Your task to perform on an android device: Go to wifi settings Image 0: 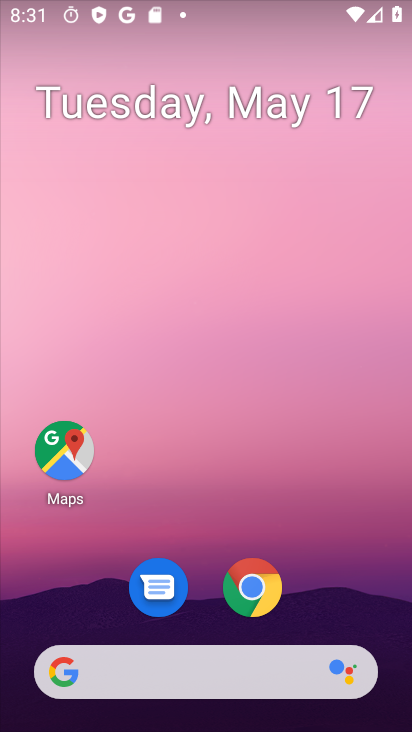
Step 0: drag from (302, 621) to (106, 159)
Your task to perform on an android device: Go to wifi settings Image 1: 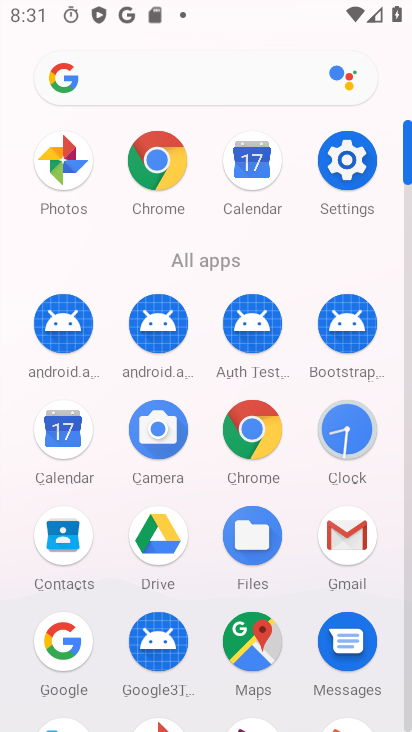
Step 1: click (342, 169)
Your task to perform on an android device: Go to wifi settings Image 2: 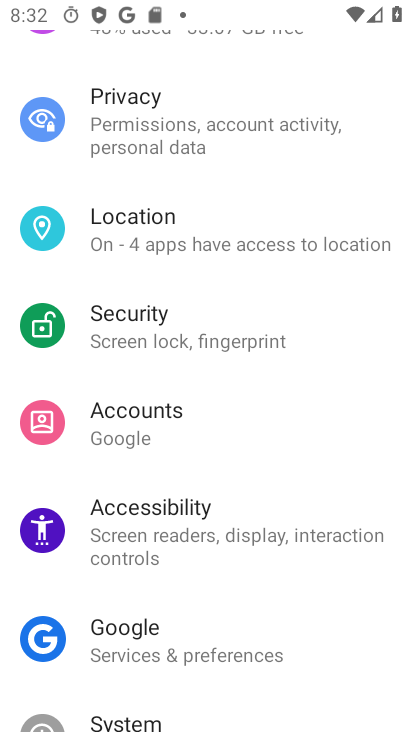
Step 2: drag from (146, 163) to (200, 546)
Your task to perform on an android device: Go to wifi settings Image 3: 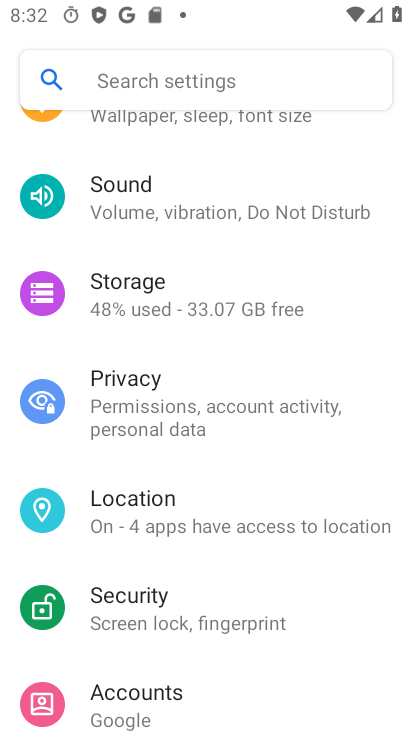
Step 3: drag from (206, 474) to (216, 551)
Your task to perform on an android device: Go to wifi settings Image 4: 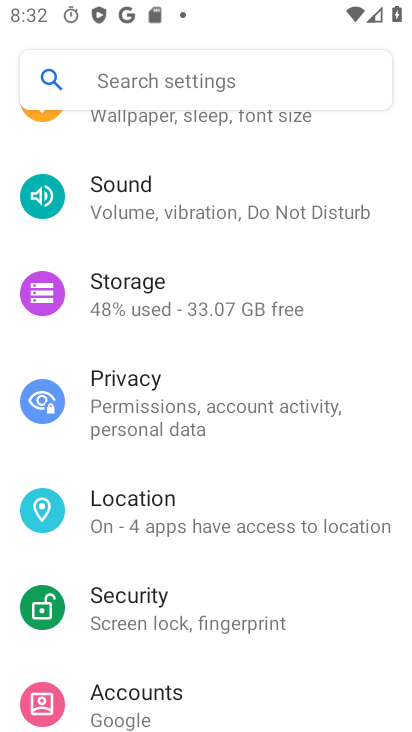
Step 4: drag from (233, 265) to (282, 561)
Your task to perform on an android device: Go to wifi settings Image 5: 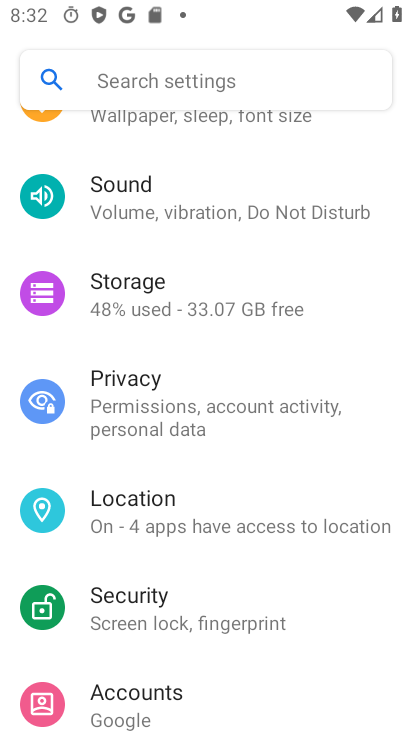
Step 5: drag from (143, 252) to (180, 503)
Your task to perform on an android device: Go to wifi settings Image 6: 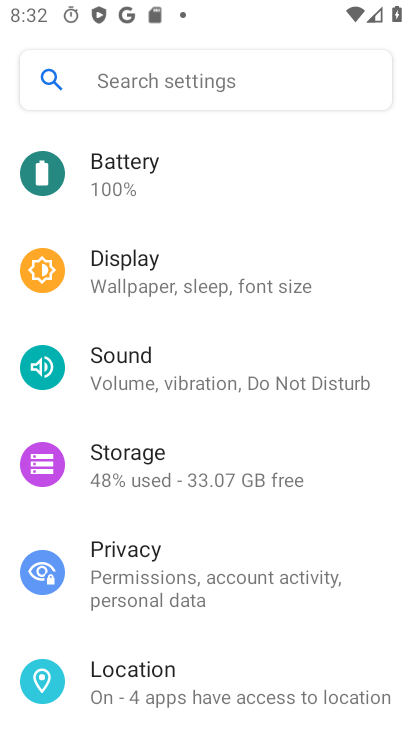
Step 6: drag from (189, 288) to (242, 551)
Your task to perform on an android device: Go to wifi settings Image 7: 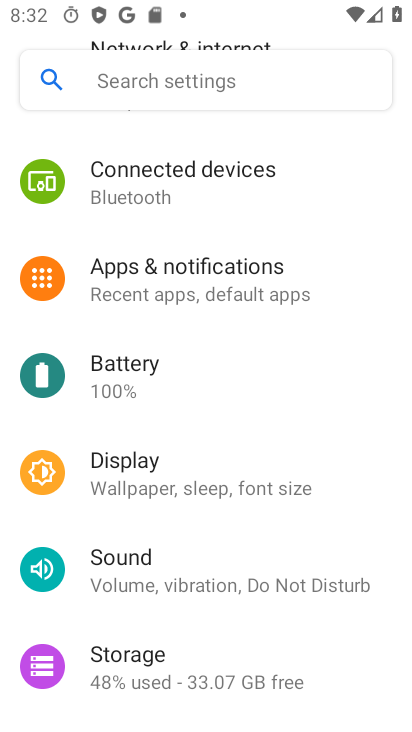
Step 7: drag from (203, 296) to (248, 569)
Your task to perform on an android device: Go to wifi settings Image 8: 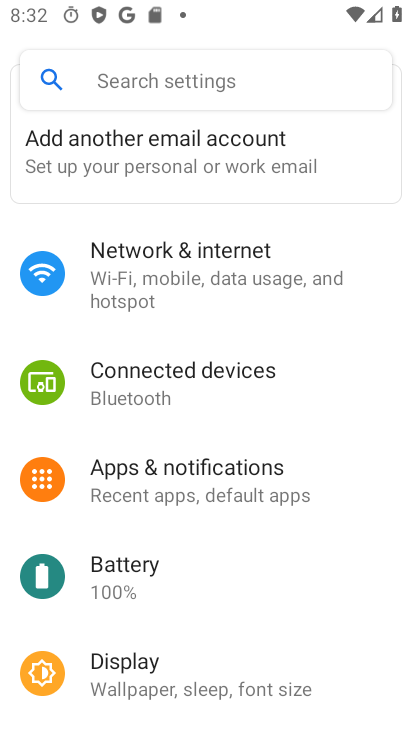
Step 8: click (188, 260)
Your task to perform on an android device: Go to wifi settings Image 9: 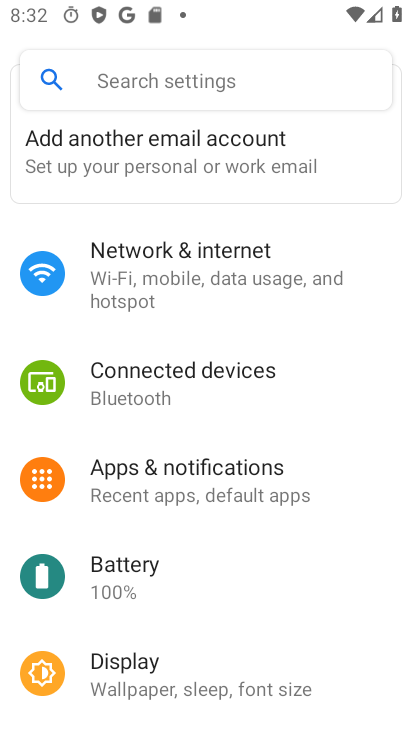
Step 9: click (188, 260)
Your task to perform on an android device: Go to wifi settings Image 10: 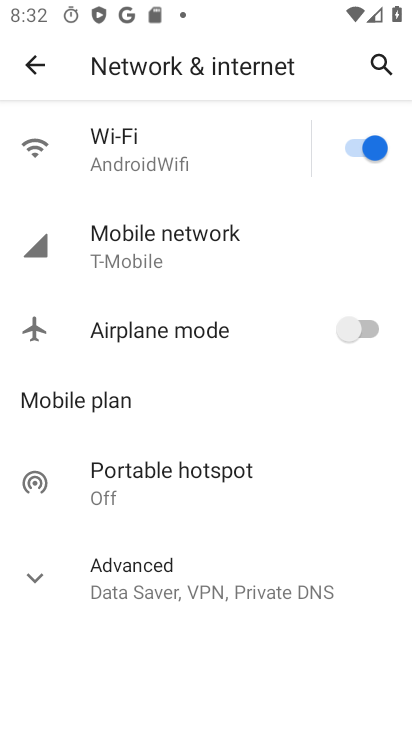
Step 10: click (175, 292)
Your task to perform on an android device: Go to wifi settings Image 11: 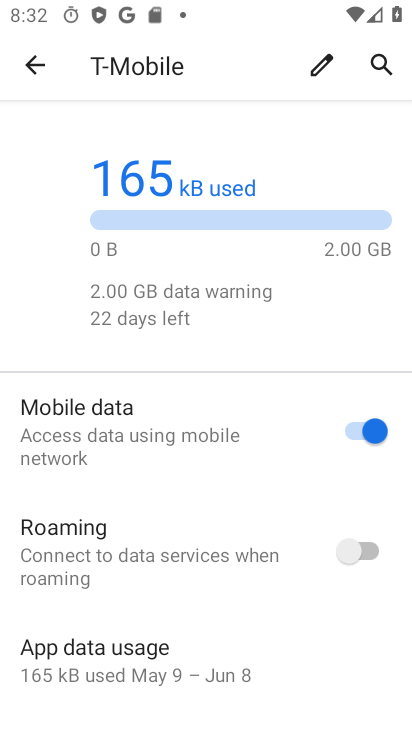
Step 11: click (32, 71)
Your task to perform on an android device: Go to wifi settings Image 12: 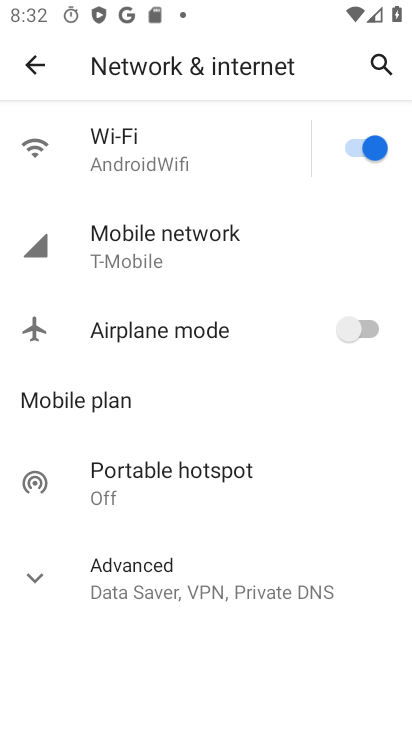
Step 12: task complete